Your task to perform on an android device: toggle airplane mode Image 0: 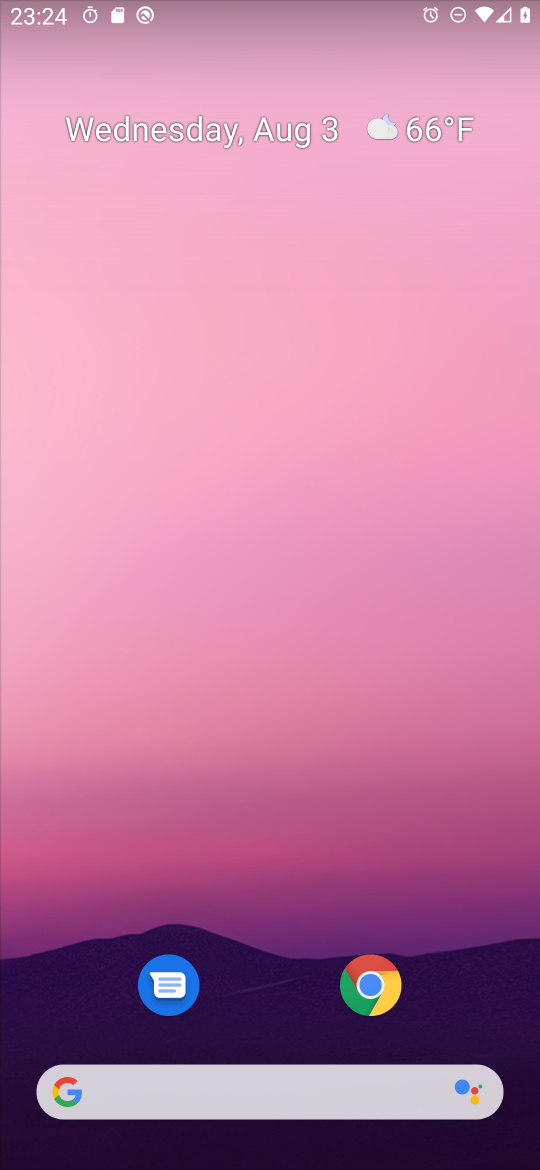
Step 0: drag from (282, 965) to (225, 341)
Your task to perform on an android device: toggle airplane mode Image 1: 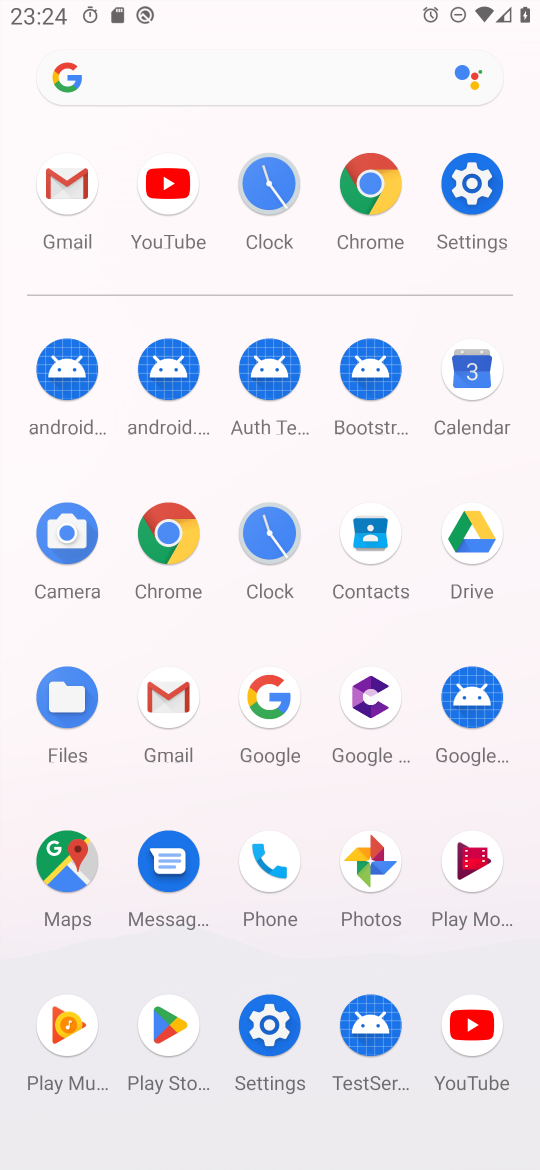
Step 1: click (470, 204)
Your task to perform on an android device: toggle airplane mode Image 2: 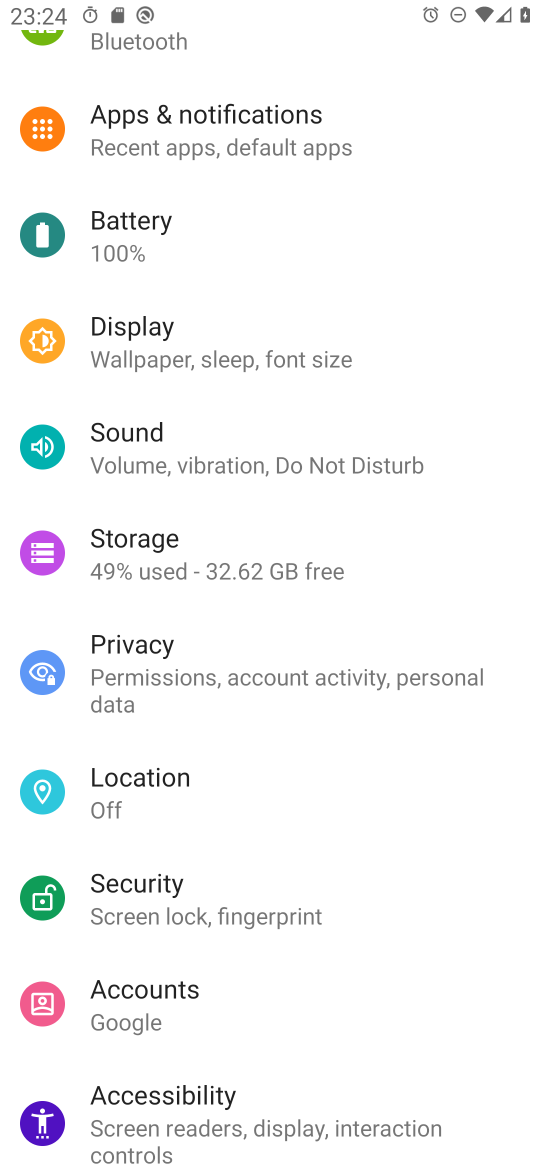
Step 2: drag from (256, 214) to (371, 830)
Your task to perform on an android device: toggle airplane mode Image 3: 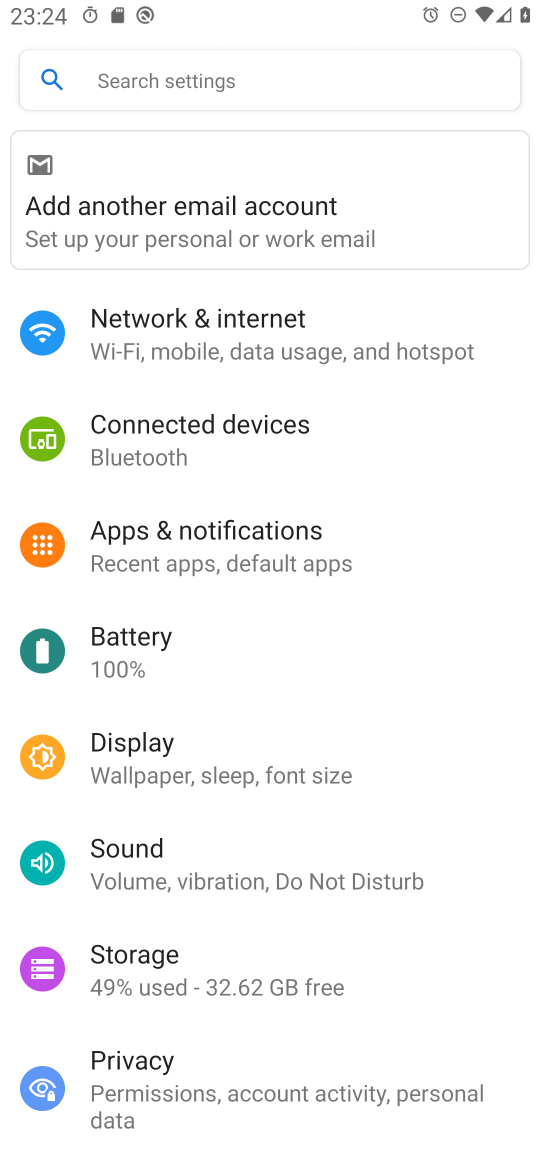
Step 3: click (252, 367)
Your task to perform on an android device: toggle airplane mode Image 4: 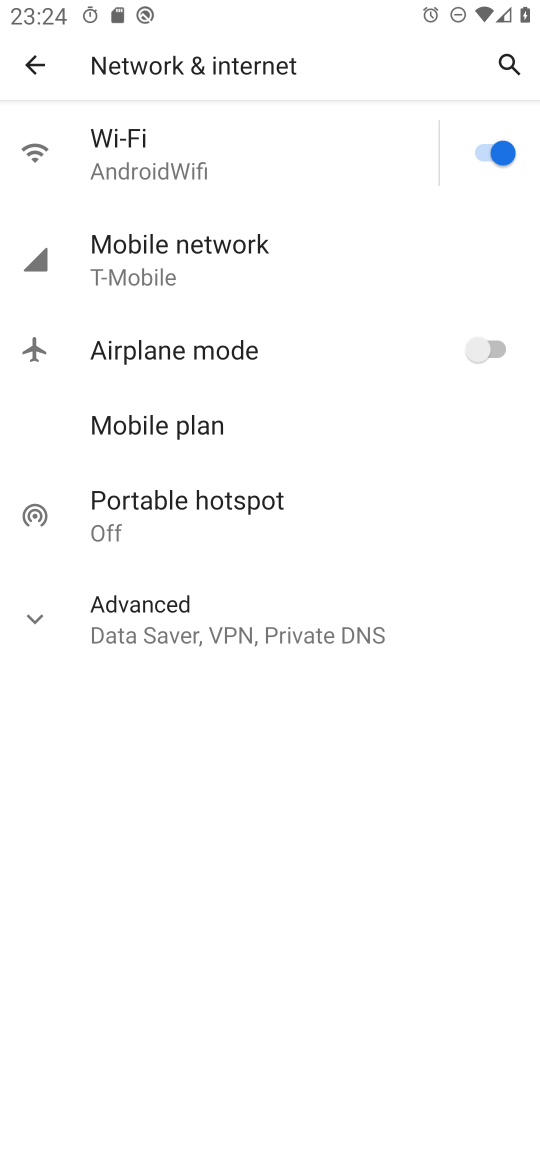
Step 4: click (506, 349)
Your task to perform on an android device: toggle airplane mode Image 5: 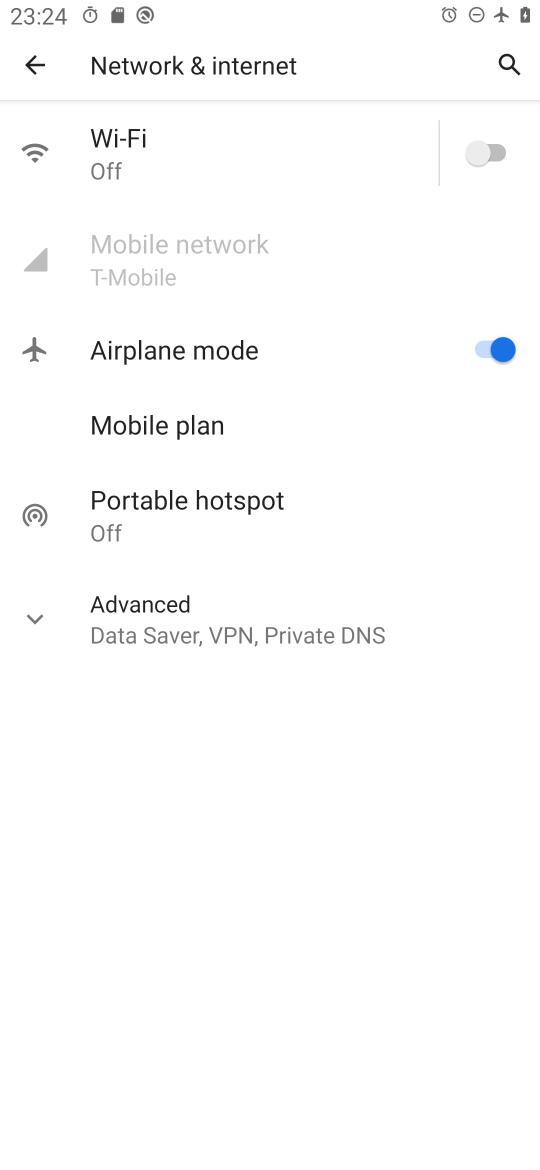
Step 5: task complete